Your task to perform on an android device: Go to Maps Image 0: 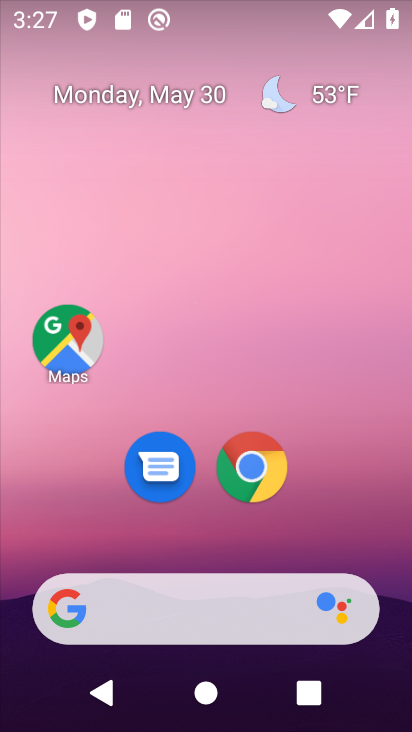
Step 0: click (69, 337)
Your task to perform on an android device: Go to Maps Image 1: 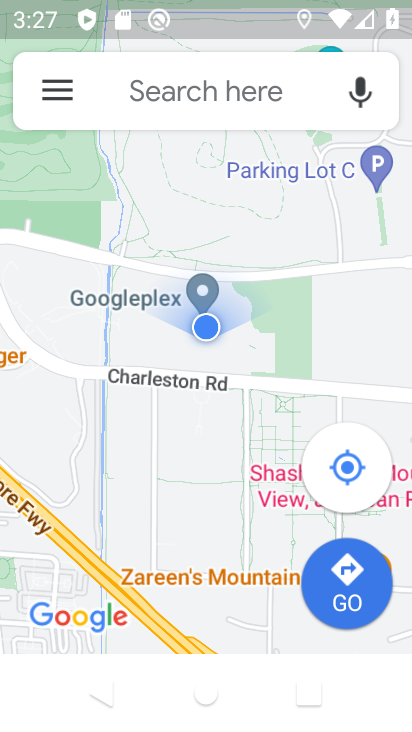
Step 1: task complete